Your task to perform on an android device: turn on the 24-hour format for clock Image 0: 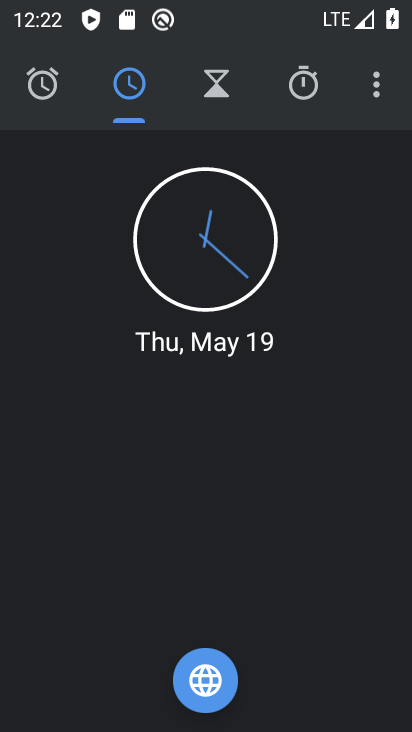
Step 0: press home button
Your task to perform on an android device: turn on the 24-hour format for clock Image 1: 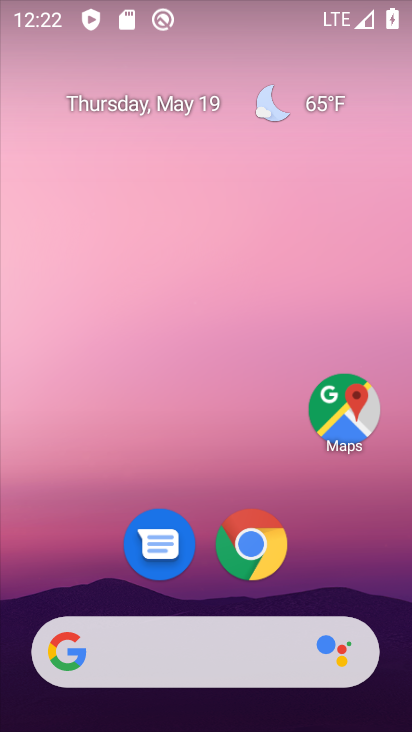
Step 1: drag from (380, 571) to (375, 104)
Your task to perform on an android device: turn on the 24-hour format for clock Image 2: 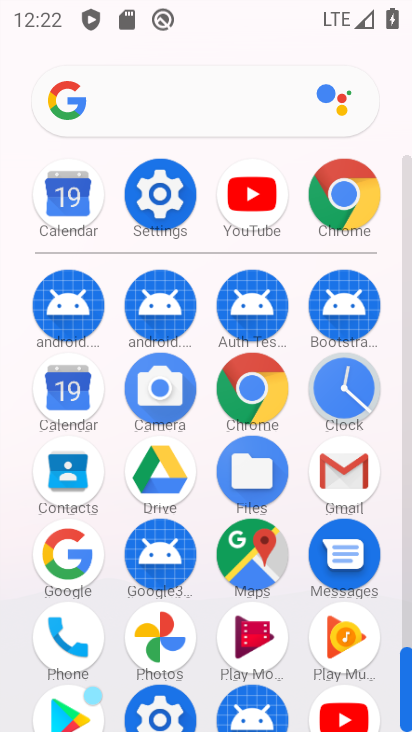
Step 2: click (344, 400)
Your task to perform on an android device: turn on the 24-hour format for clock Image 3: 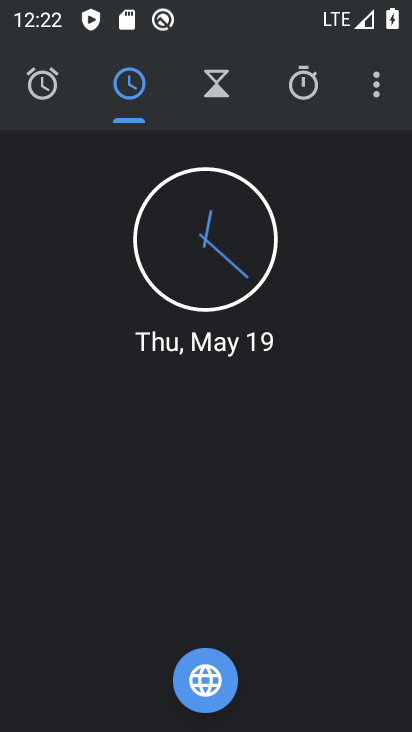
Step 3: click (382, 92)
Your task to perform on an android device: turn on the 24-hour format for clock Image 4: 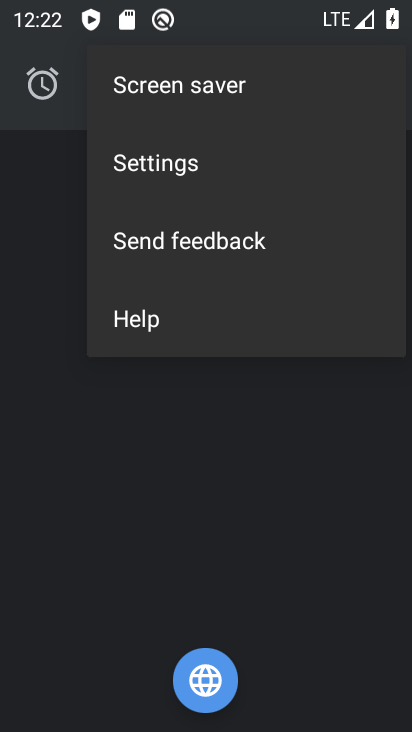
Step 4: click (232, 185)
Your task to perform on an android device: turn on the 24-hour format for clock Image 5: 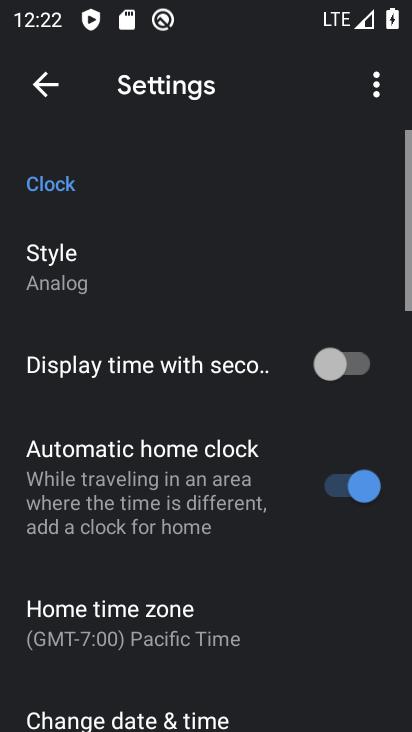
Step 5: drag from (253, 564) to (248, 238)
Your task to perform on an android device: turn on the 24-hour format for clock Image 6: 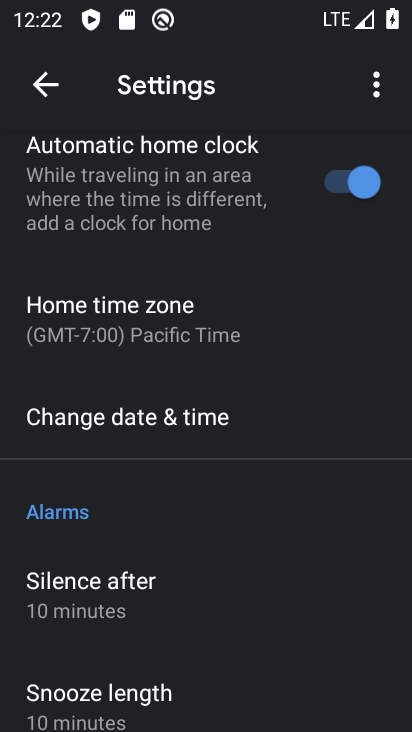
Step 6: drag from (267, 540) to (275, 277)
Your task to perform on an android device: turn on the 24-hour format for clock Image 7: 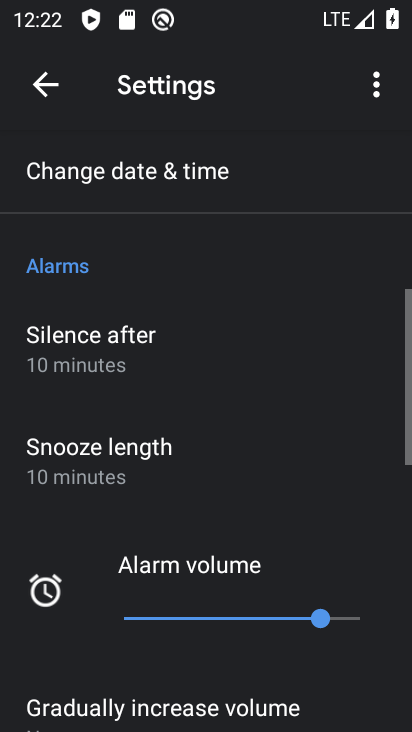
Step 7: drag from (300, 546) to (318, 320)
Your task to perform on an android device: turn on the 24-hour format for clock Image 8: 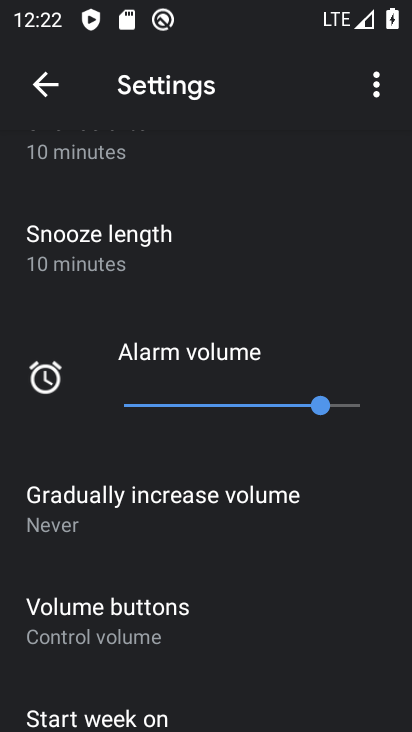
Step 8: drag from (328, 599) to (325, 344)
Your task to perform on an android device: turn on the 24-hour format for clock Image 9: 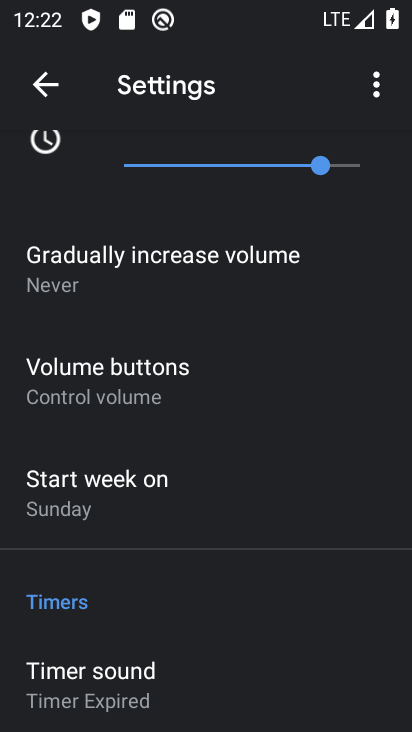
Step 9: drag from (287, 593) to (287, 398)
Your task to perform on an android device: turn on the 24-hour format for clock Image 10: 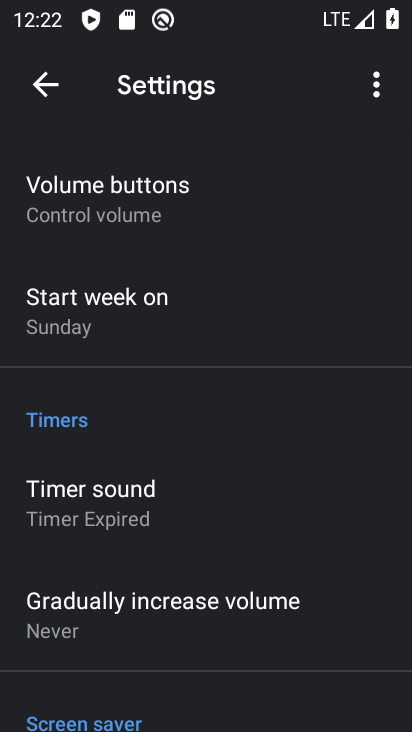
Step 10: drag from (289, 545) to (285, 329)
Your task to perform on an android device: turn on the 24-hour format for clock Image 11: 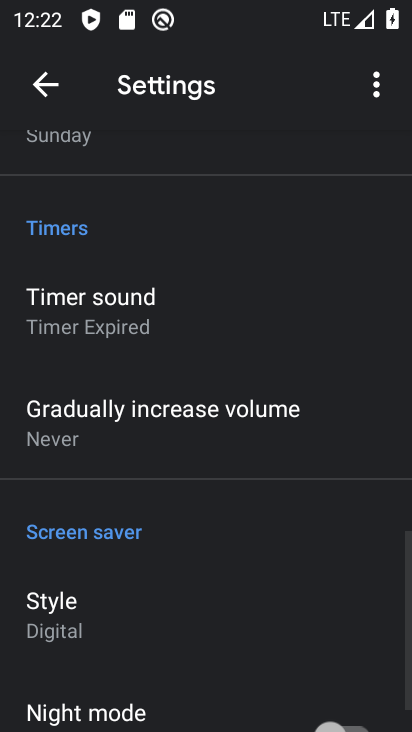
Step 11: drag from (283, 566) to (273, 311)
Your task to perform on an android device: turn on the 24-hour format for clock Image 12: 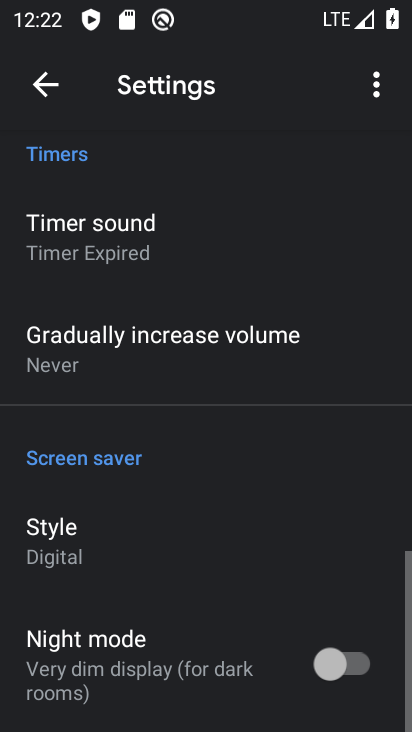
Step 12: drag from (223, 529) to (225, 241)
Your task to perform on an android device: turn on the 24-hour format for clock Image 13: 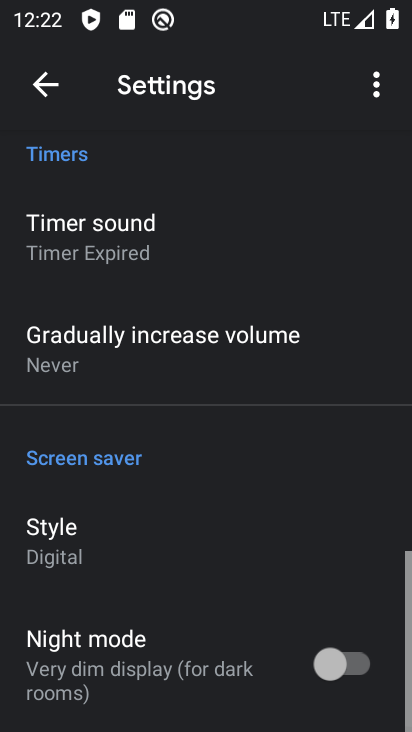
Step 13: drag from (228, 216) to (225, 468)
Your task to perform on an android device: turn on the 24-hour format for clock Image 14: 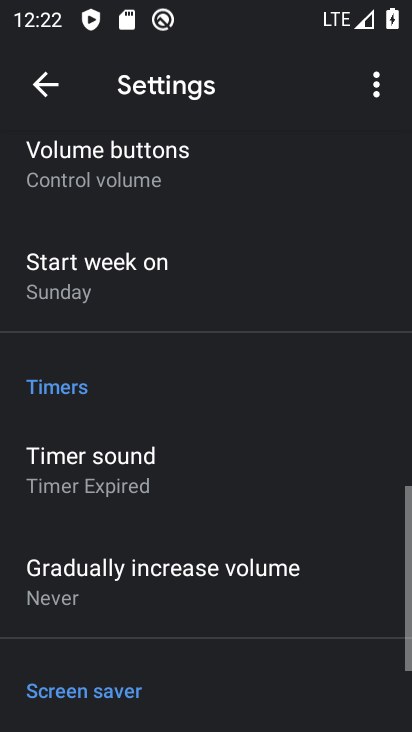
Step 14: drag from (230, 269) to (226, 502)
Your task to perform on an android device: turn on the 24-hour format for clock Image 15: 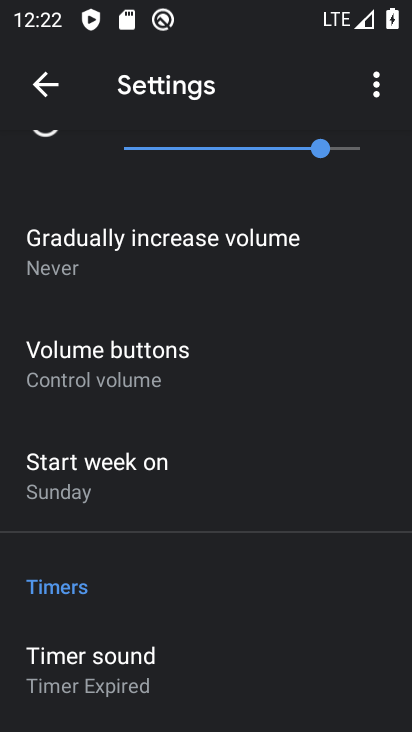
Step 15: drag from (236, 192) to (238, 475)
Your task to perform on an android device: turn on the 24-hour format for clock Image 16: 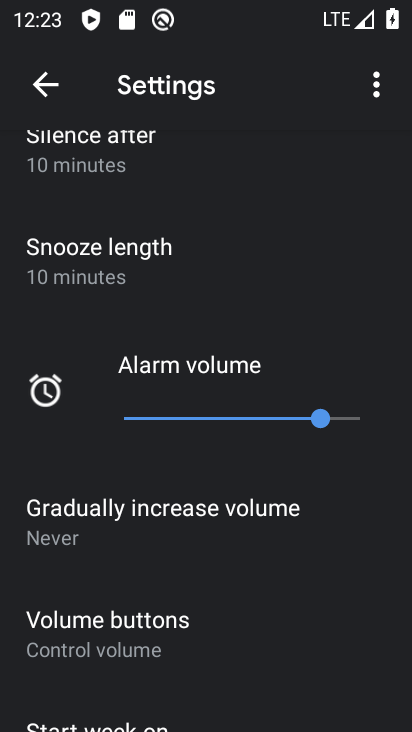
Step 16: drag from (245, 213) to (239, 455)
Your task to perform on an android device: turn on the 24-hour format for clock Image 17: 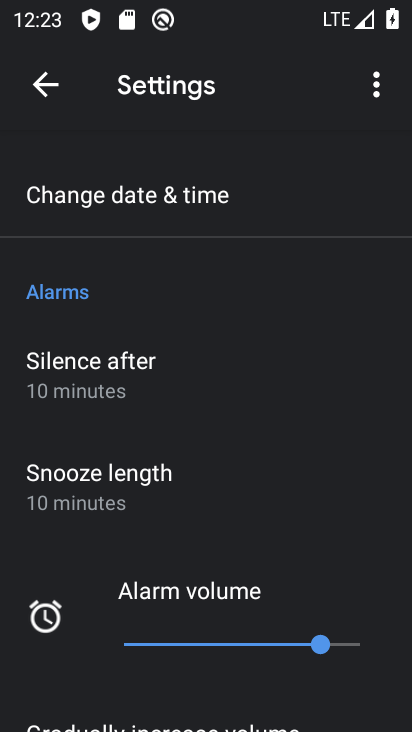
Step 17: drag from (243, 252) to (241, 393)
Your task to perform on an android device: turn on the 24-hour format for clock Image 18: 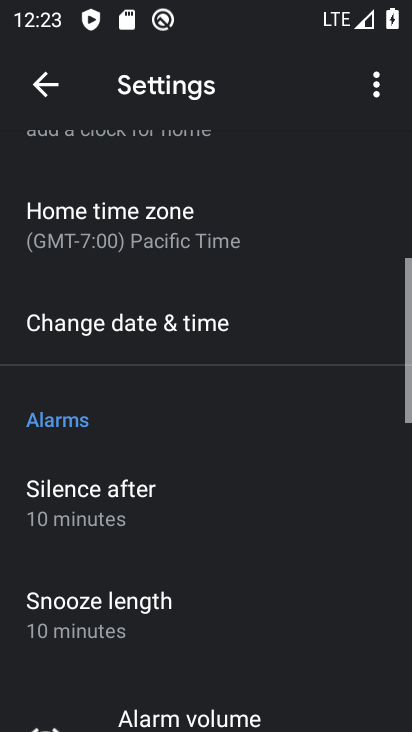
Step 18: click (222, 325)
Your task to perform on an android device: turn on the 24-hour format for clock Image 19: 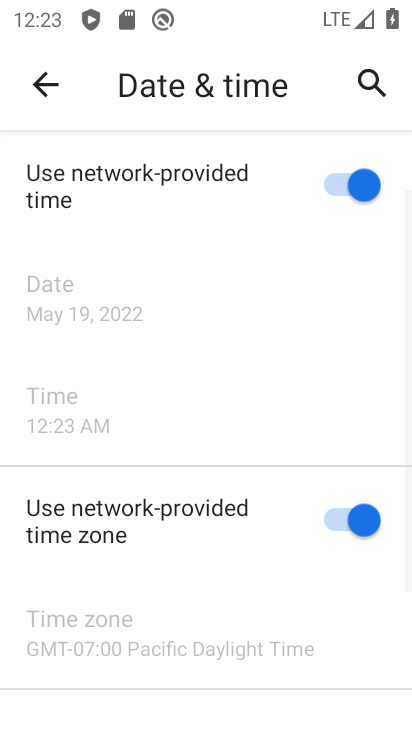
Step 19: drag from (256, 561) to (282, 328)
Your task to perform on an android device: turn on the 24-hour format for clock Image 20: 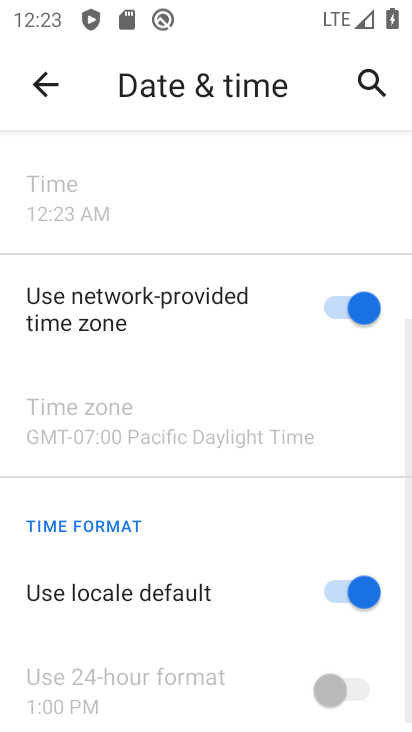
Step 20: drag from (279, 652) to (277, 443)
Your task to perform on an android device: turn on the 24-hour format for clock Image 21: 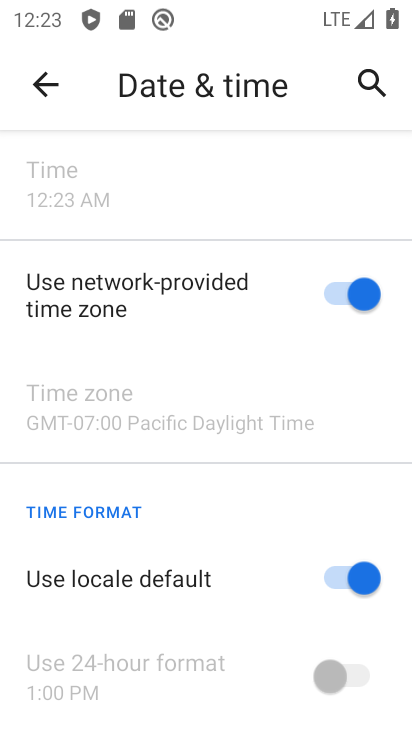
Step 21: click (346, 566)
Your task to perform on an android device: turn on the 24-hour format for clock Image 22: 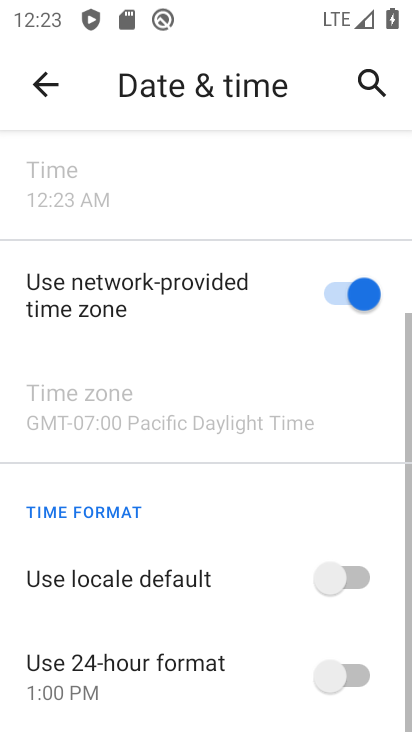
Step 22: click (347, 679)
Your task to perform on an android device: turn on the 24-hour format for clock Image 23: 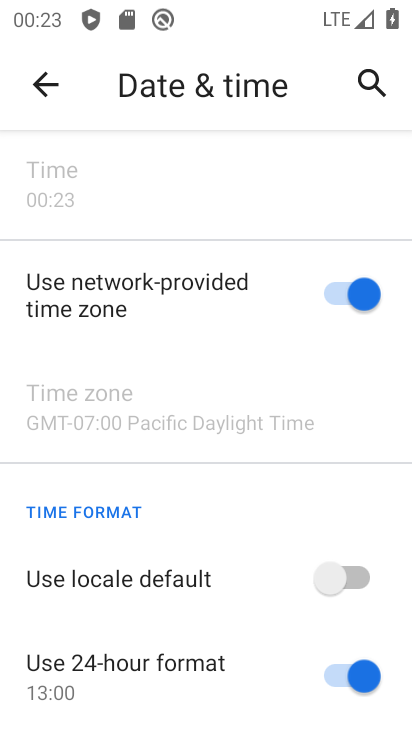
Step 23: task complete